Your task to perform on an android device: toggle wifi Image 0: 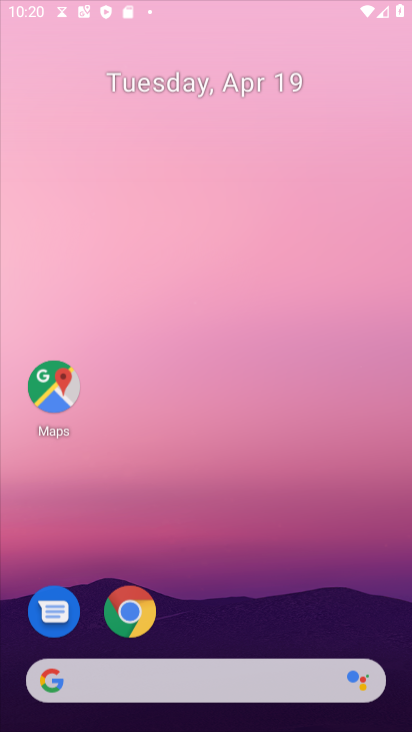
Step 0: click (321, 63)
Your task to perform on an android device: toggle wifi Image 1: 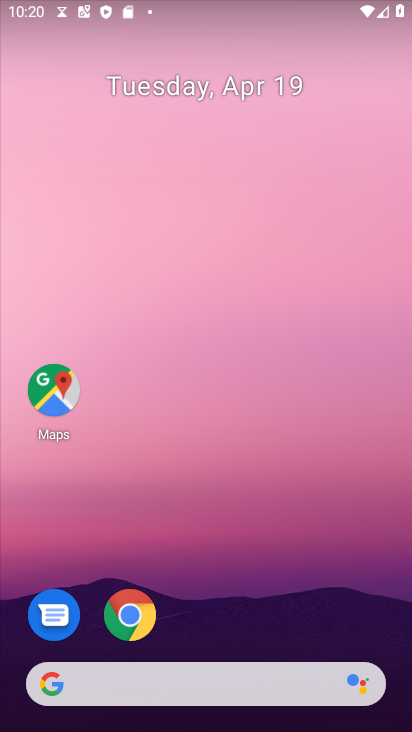
Step 1: drag from (265, 151) to (268, 105)
Your task to perform on an android device: toggle wifi Image 2: 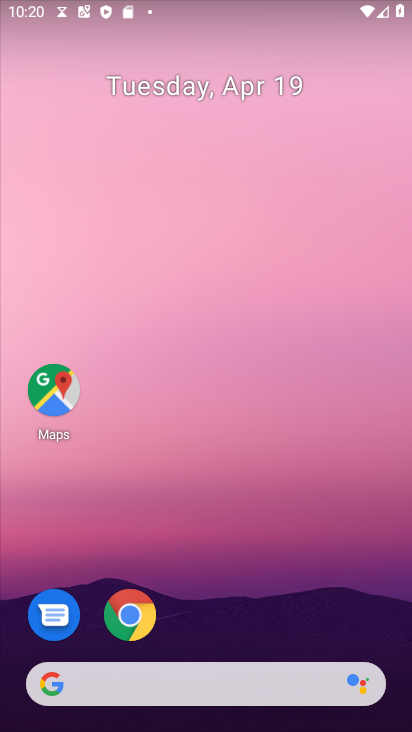
Step 2: drag from (182, 536) to (109, 10)
Your task to perform on an android device: toggle wifi Image 3: 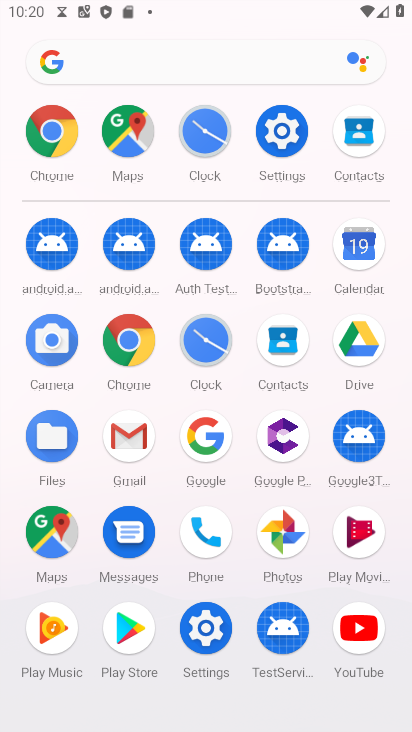
Step 3: drag from (217, 636) to (236, 300)
Your task to perform on an android device: toggle wifi Image 4: 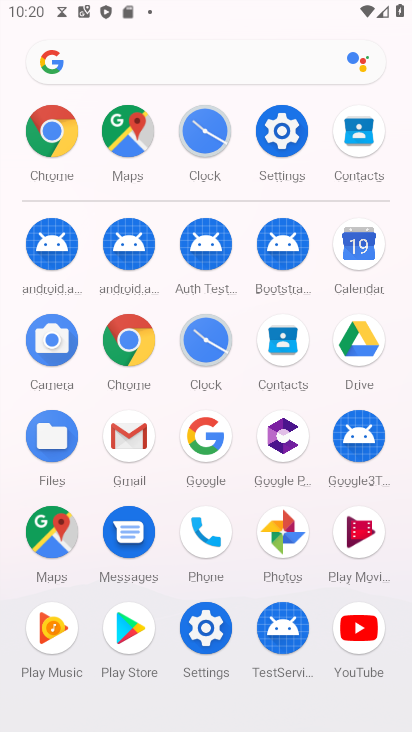
Step 4: drag from (238, 635) to (260, 256)
Your task to perform on an android device: toggle wifi Image 5: 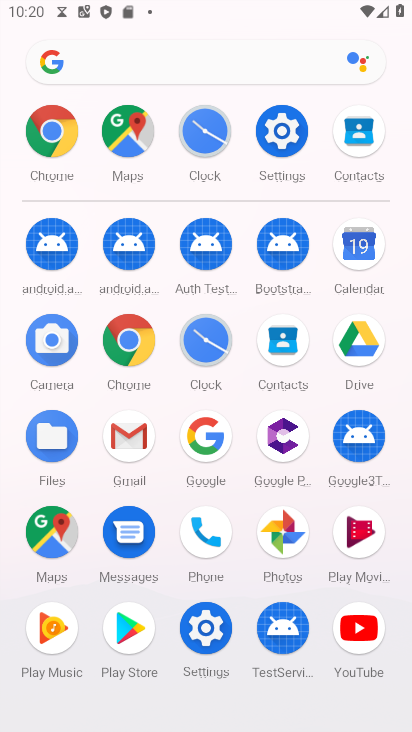
Step 5: click (205, 620)
Your task to perform on an android device: toggle wifi Image 6: 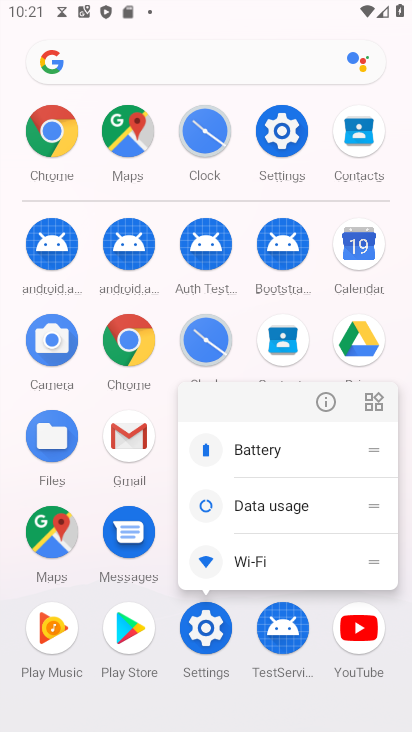
Step 6: click (325, 403)
Your task to perform on an android device: toggle wifi Image 7: 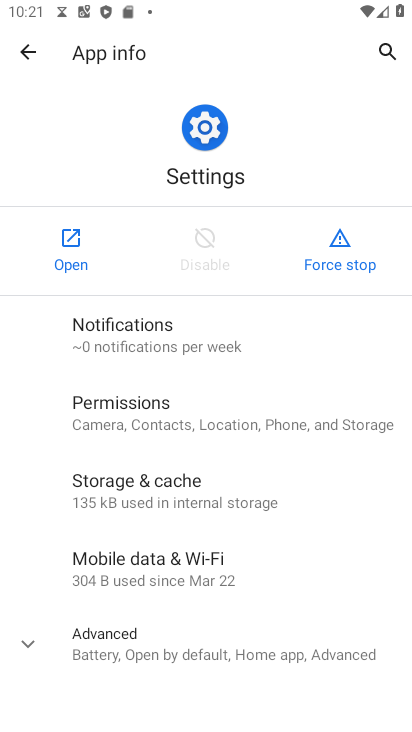
Step 7: click (69, 225)
Your task to perform on an android device: toggle wifi Image 8: 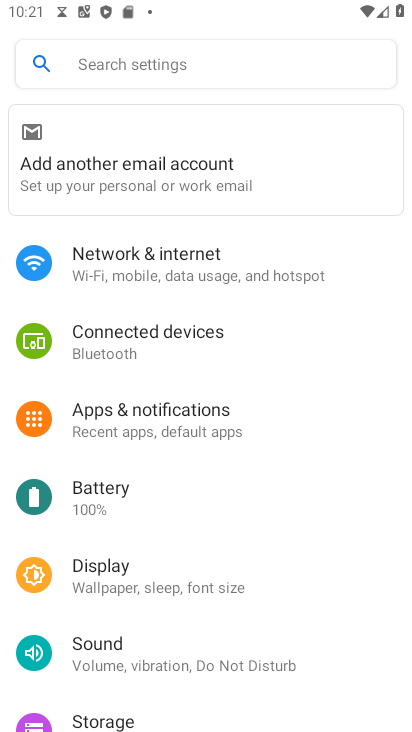
Step 8: click (186, 276)
Your task to perform on an android device: toggle wifi Image 9: 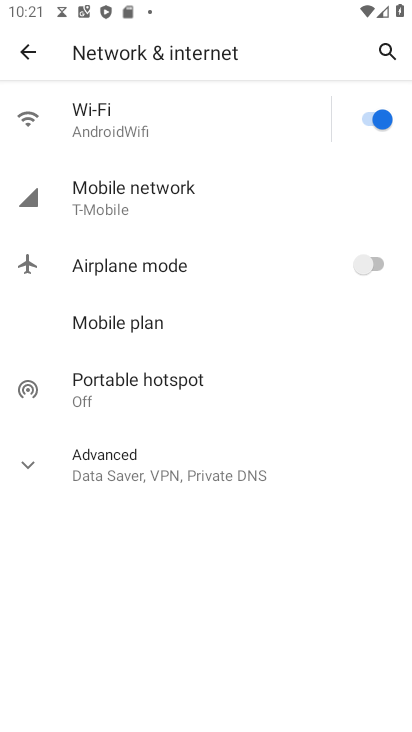
Step 9: click (167, 139)
Your task to perform on an android device: toggle wifi Image 10: 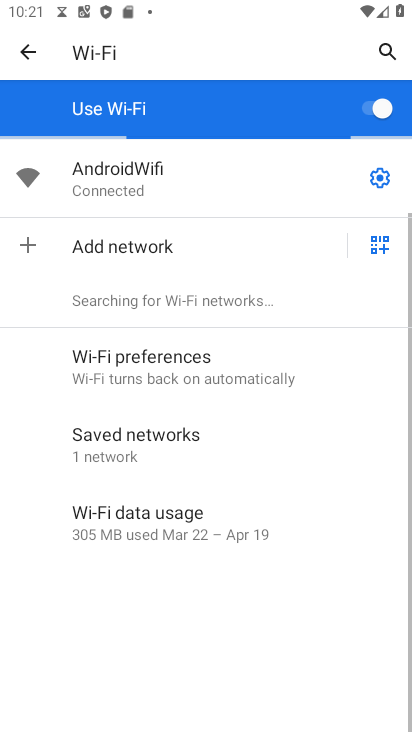
Step 10: click (368, 115)
Your task to perform on an android device: toggle wifi Image 11: 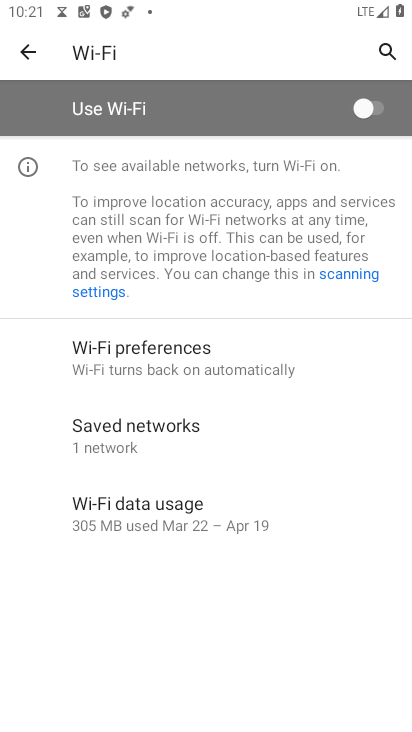
Step 11: task complete